Your task to perform on an android device: What's the news about the US president? Image 0: 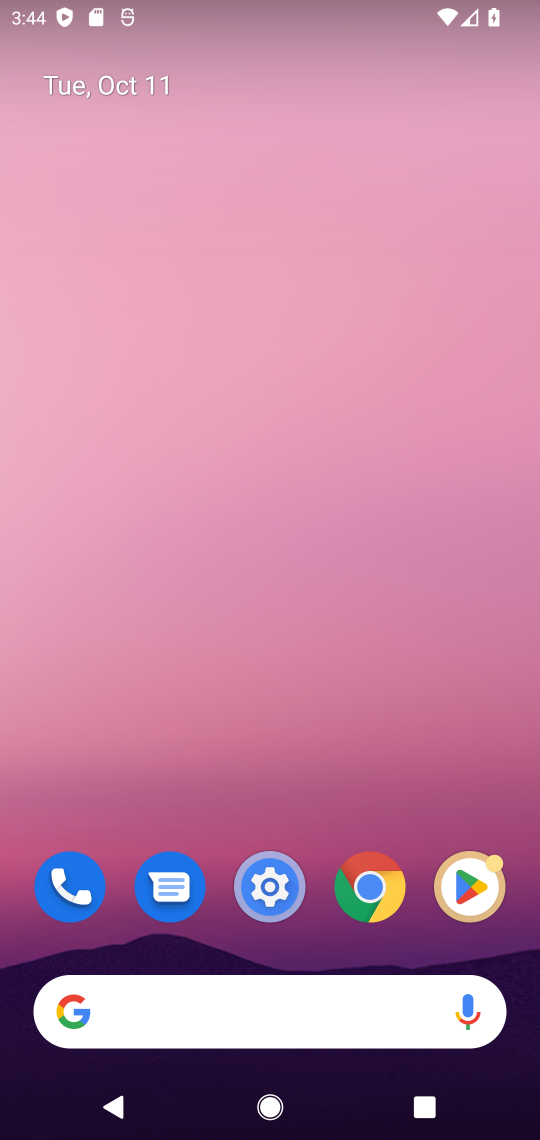
Step 0: click (361, 897)
Your task to perform on an android device: What's the news about the US president? Image 1: 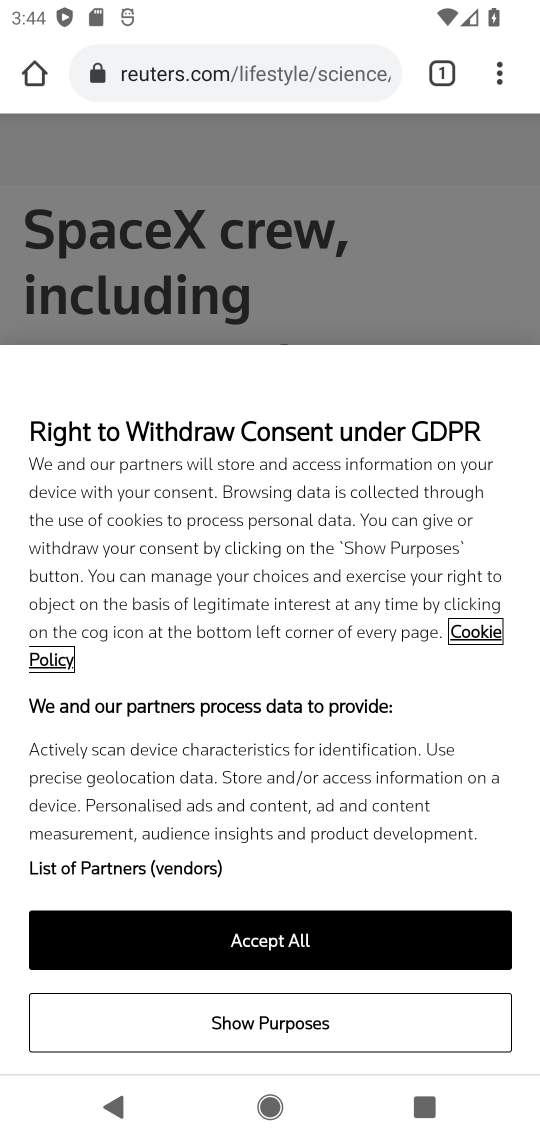
Step 1: click (242, 71)
Your task to perform on an android device: What's the news about the US president? Image 2: 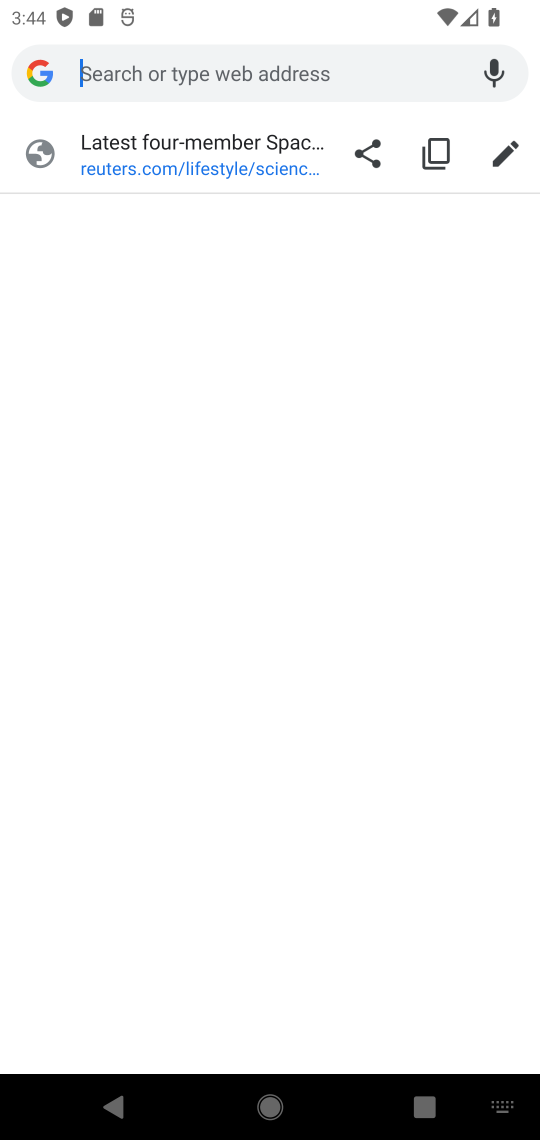
Step 2: type "US president"
Your task to perform on an android device: What's the news about the US president? Image 3: 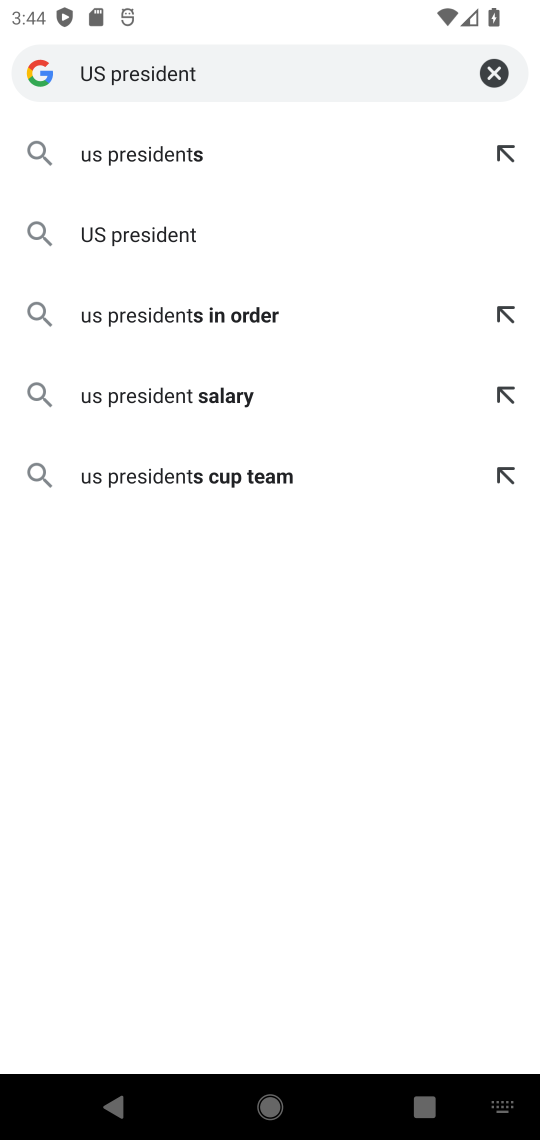
Step 3: click (118, 238)
Your task to perform on an android device: What's the news about the US president? Image 4: 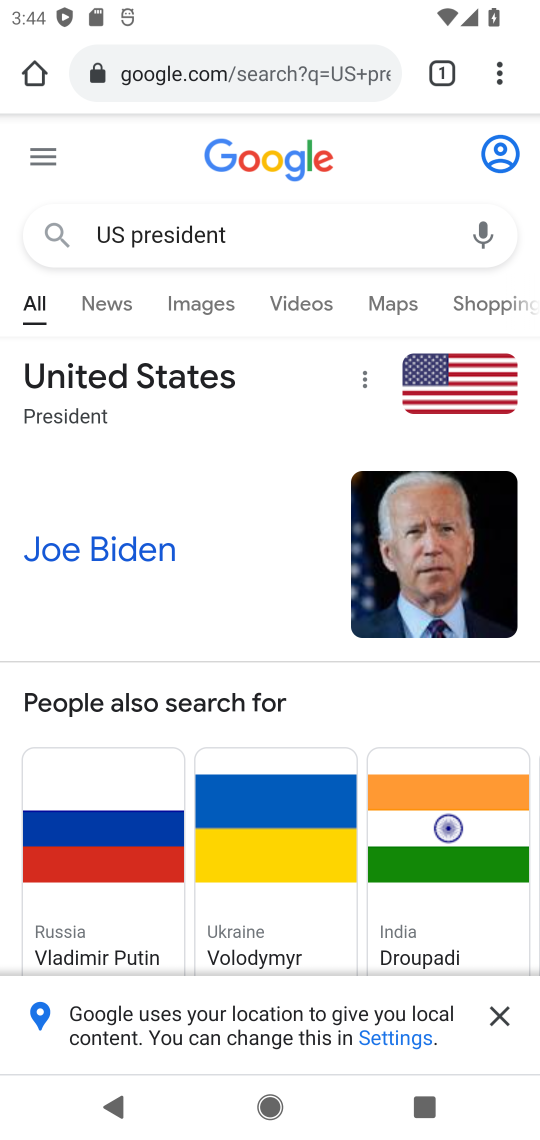
Step 4: click (103, 312)
Your task to perform on an android device: What's the news about the US president? Image 5: 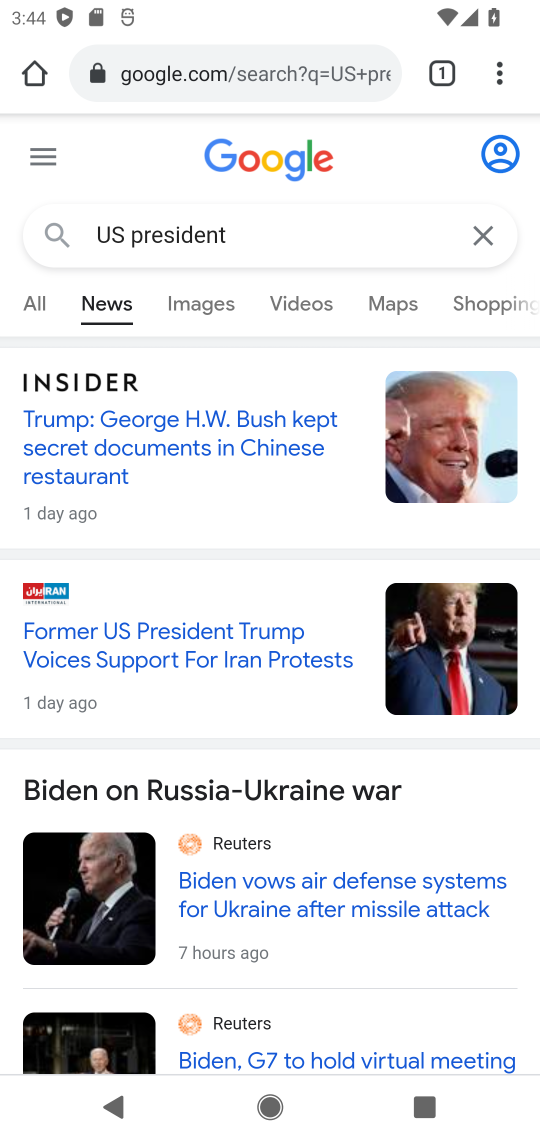
Step 5: click (122, 462)
Your task to perform on an android device: What's the news about the US president? Image 6: 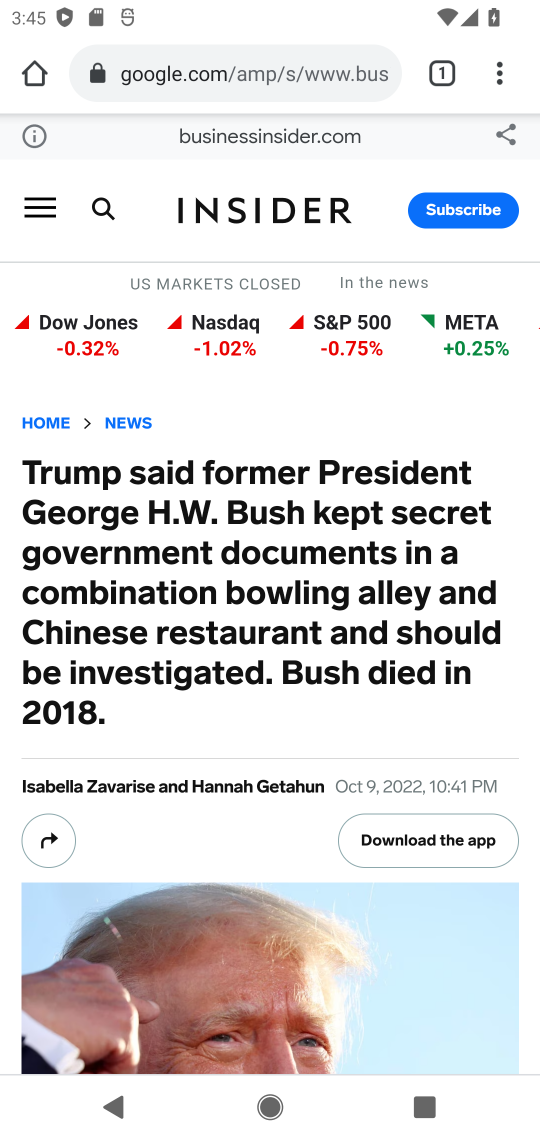
Step 6: task complete